Your task to perform on an android device: Is it going to rain today? Image 0: 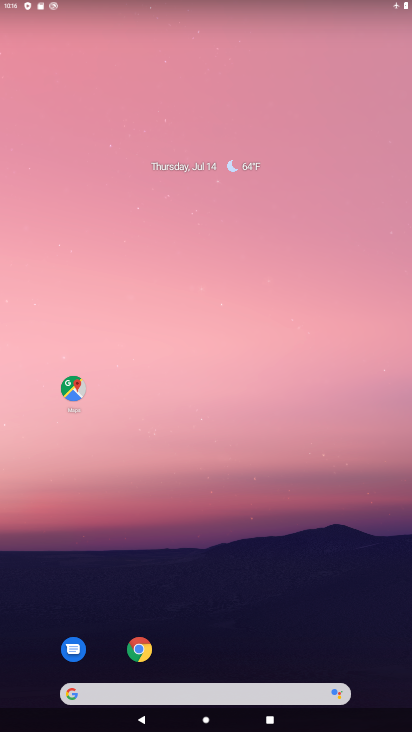
Step 0: drag from (256, 638) to (241, 4)
Your task to perform on an android device: Is it going to rain today? Image 1: 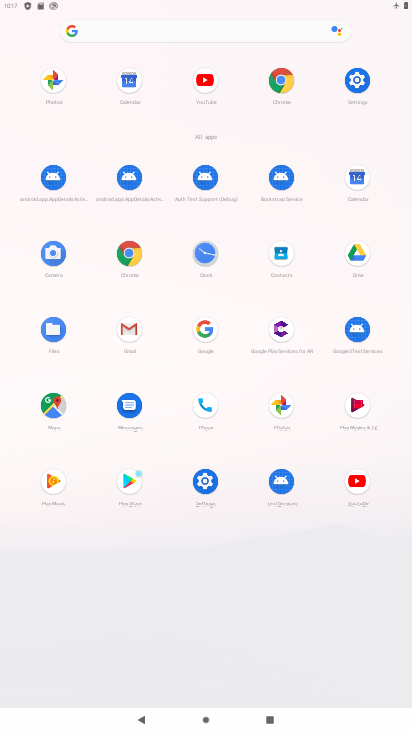
Step 1: drag from (390, 4) to (322, 623)
Your task to perform on an android device: Is it going to rain today? Image 2: 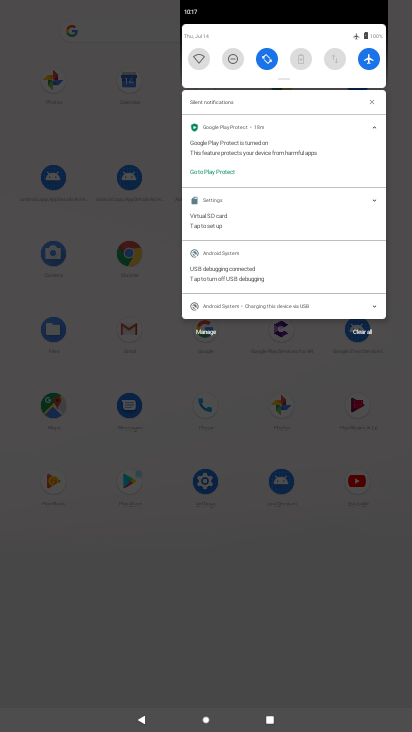
Step 2: drag from (288, 73) to (304, 615)
Your task to perform on an android device: Is it going to rain today? Image 3: 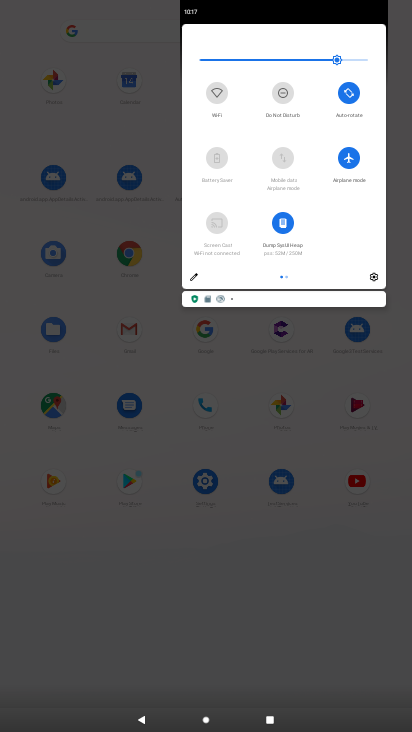
Step 3: click (341, 146)
Your task to perform on an android device: Is it going to rain today? Image 4: 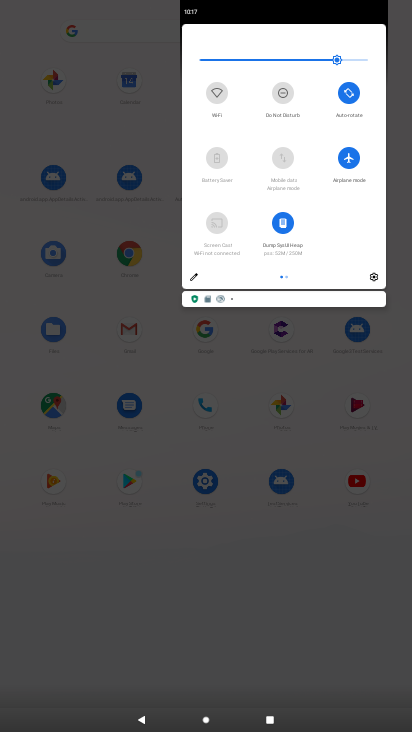
Step 4: click (348, 147)
Your task to perform on an android device: Is it going to rain today? Image 5: 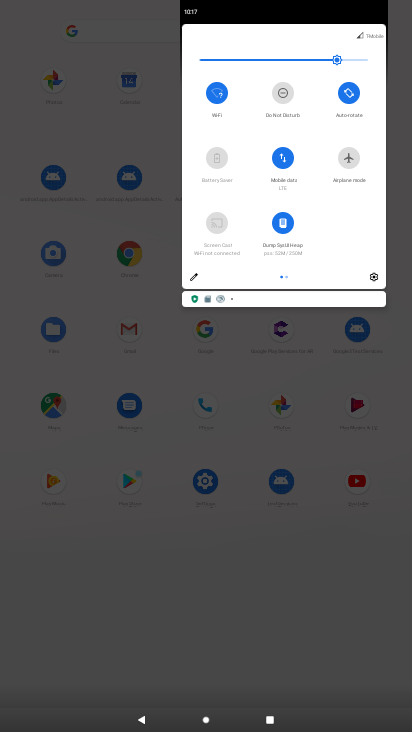
Step 5: drag from (299, 450) to (340, 8)
Your task to perform on an android device: Is it going to rain today? Image 6: 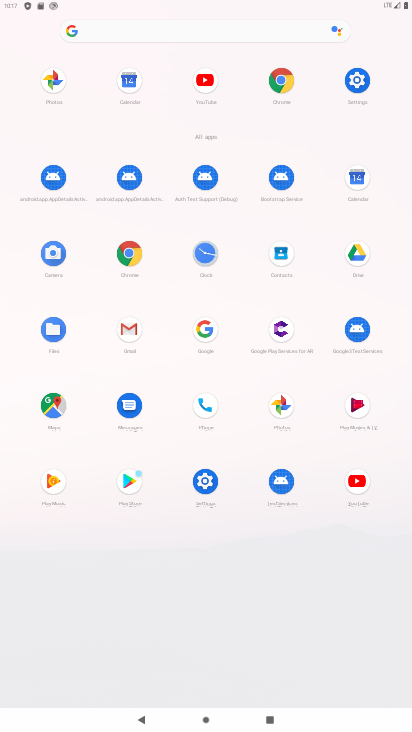
Step 6: click (136, 269)
Your task to perform on an android device: Is it going to rain today? Image 7: 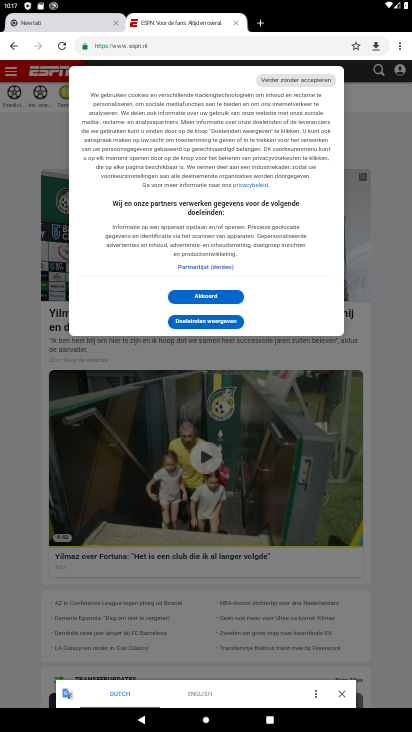
Step 7: click (162, 48)
Your task to perform on an android device: Is it going to rain today? Image 8: 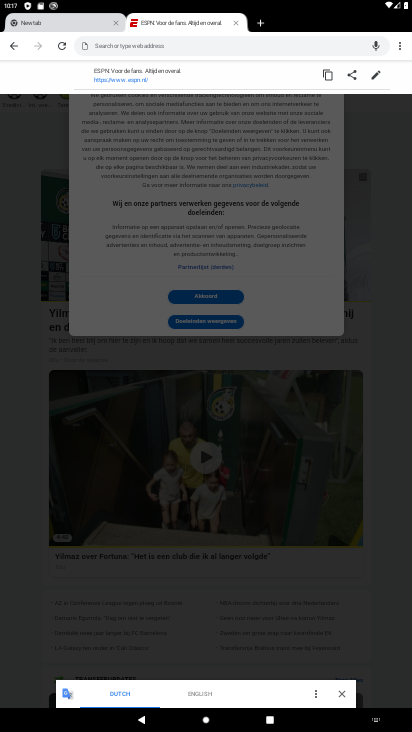
Step 8: type "Is it going to rain today?"
Your task to perform on an android device: Is it going to rain today? Image 9: 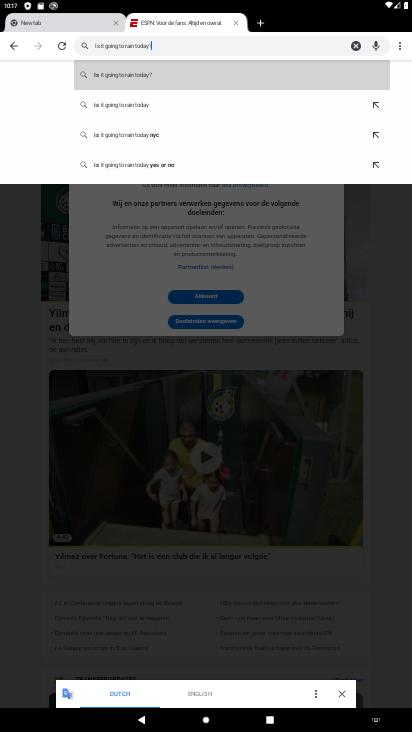
Step 9: type ""
Your task to perform on an android device: Is it going to rain today? Image 10: 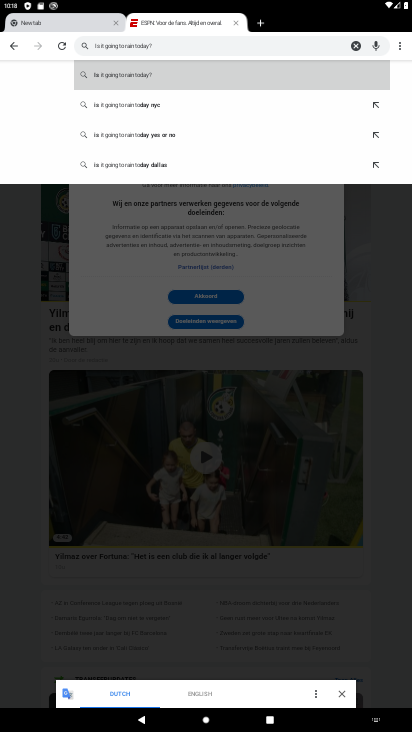
Step 10: click (125, 74)
Your task to perform on an android device: Is it going to rain today? Image 11: 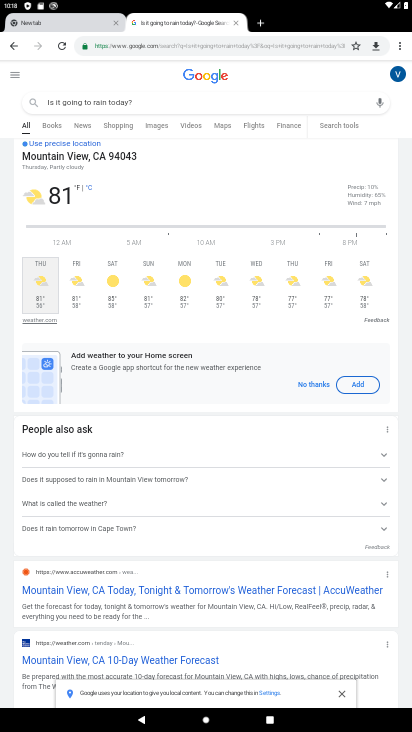
Step 11: task complete